Your task to perform on an android device: Open wifi settings Image 0: 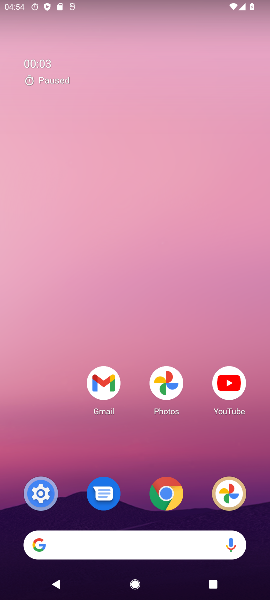
Step 0: drag from (14, 574) to (223, 127)
Your task to perform on an android device: Open wifi settings Image 1: 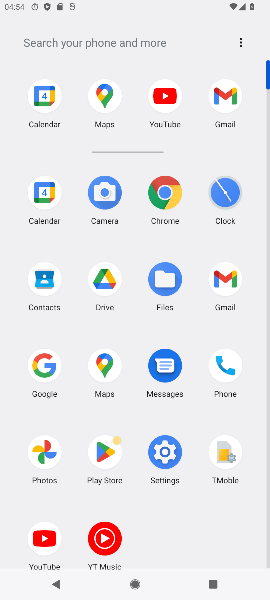
Step 1: click (164, 457)
Your task to perform on an android device: Open wifi settings Image 2: 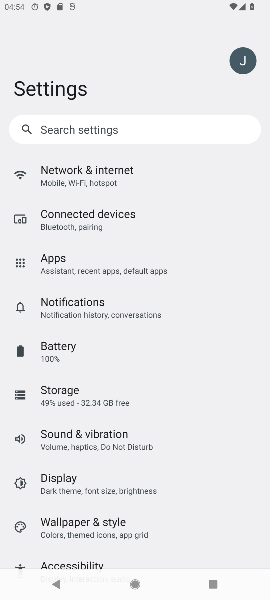
Step 2: click (68, 172)
Your task to perform on an android device: Open wifi settings Image 3: 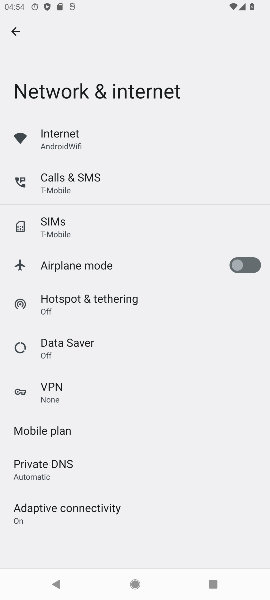
Step 3: click (79, 144)
Your task to perform on an android device: Open wifi settings Image 4: 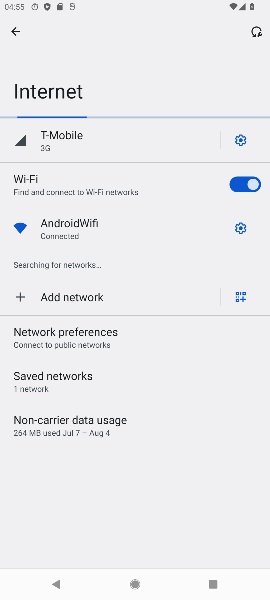
Step 4: task complete